Your task to perform on an android device: Show me popular games on the Play Store Image 0: 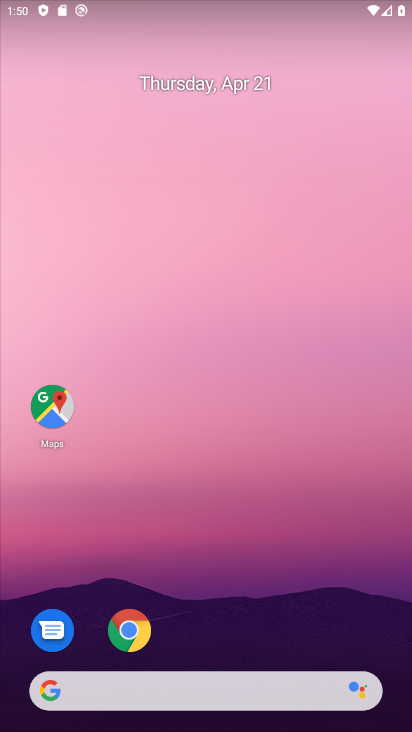
Step 0: drag from (281, 603) to (283, 158)
Your task to perform on an android device: Show me popular games on the Play Store Image 1: 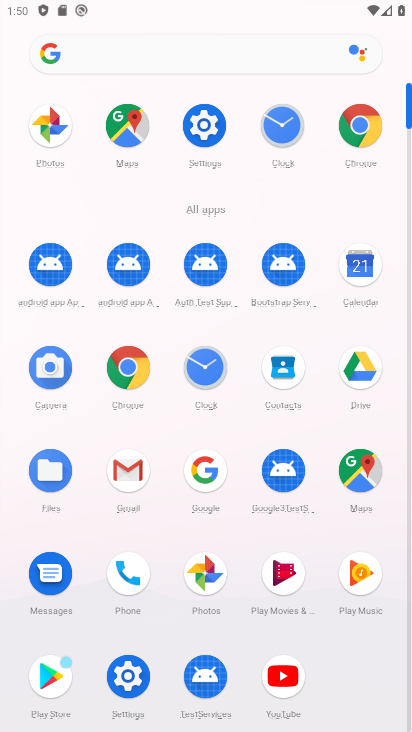
Step 1: click (56, 666)
Your task to perform on an android device: Show me popular games on the Play Store Image 2: 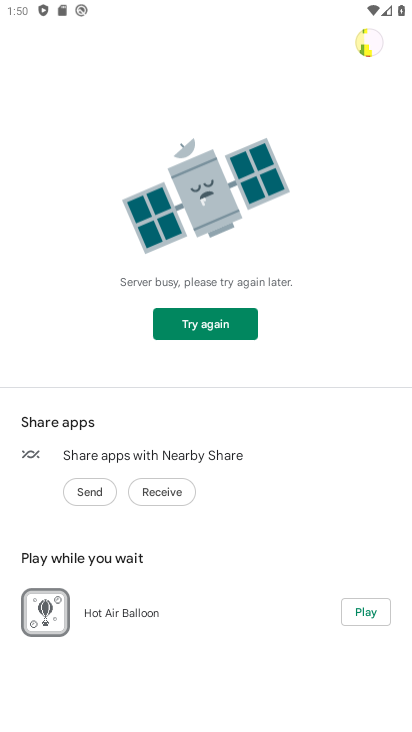
Step 2: task complete